Your task to perform on an android device: empty trash in the gmail app Image 0: 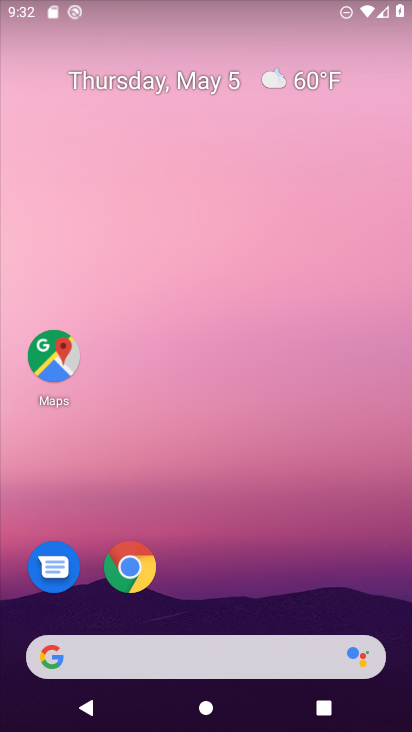
Step 0: drag from (217, 729) to (214, 59)
Your task to perform on an android device: empty trash in the gmail app Image 1: 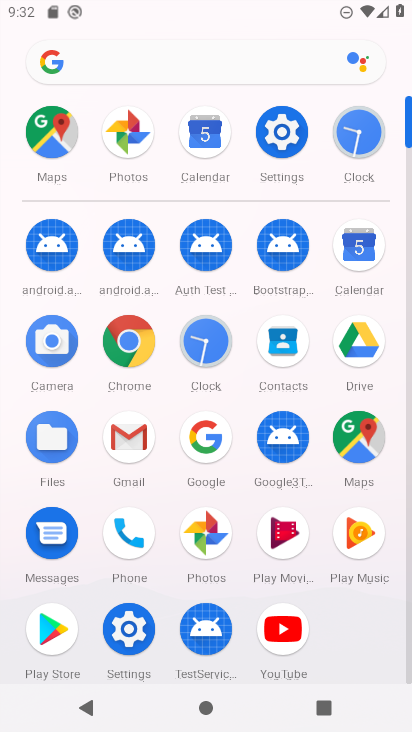
Step 1: click (119, 443)
Your task to perform on an android device: empty trash in the gmail app Image 2: 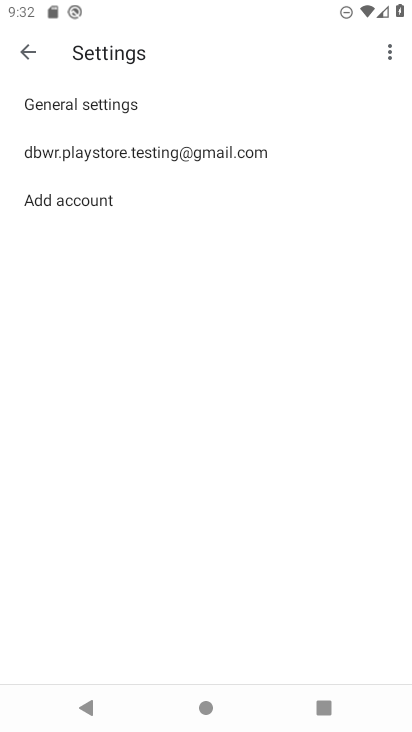
Step 2: click (23, 48)
Your task to perform on an android device: empty trash in the gmail app Image 3: 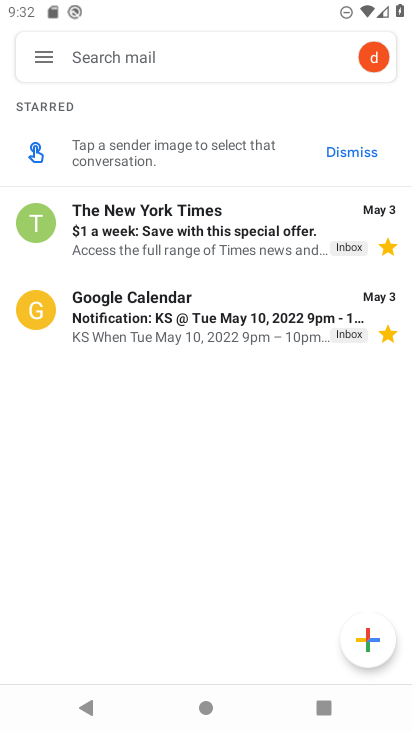
Step 3: click (40, 53)
Your task to perform on an android device: empty trash in the gmail app Image 4: 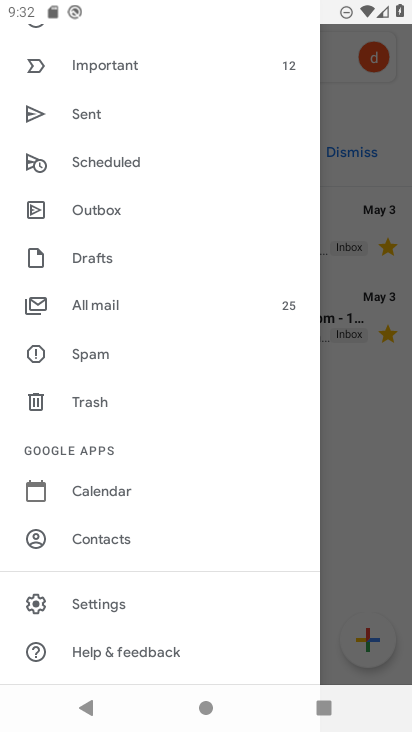
Step 4: click (88, 396)
Your task to perform on an android device: empty trash in the gmail app Image 5: 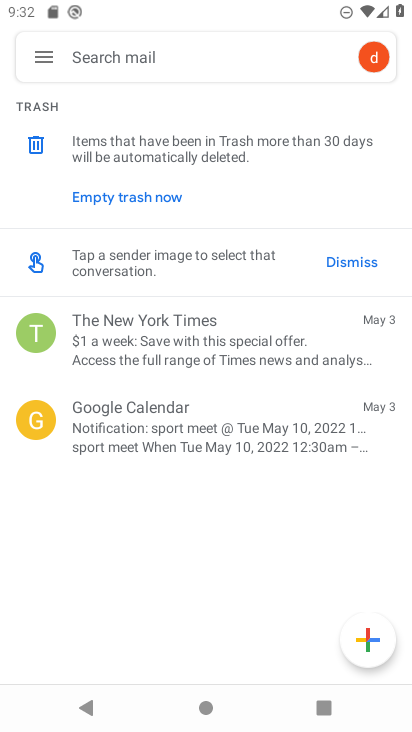
Step 5: click (117, 194)
Your task to perform on an android device: empty trash in the gmail app Image 6: 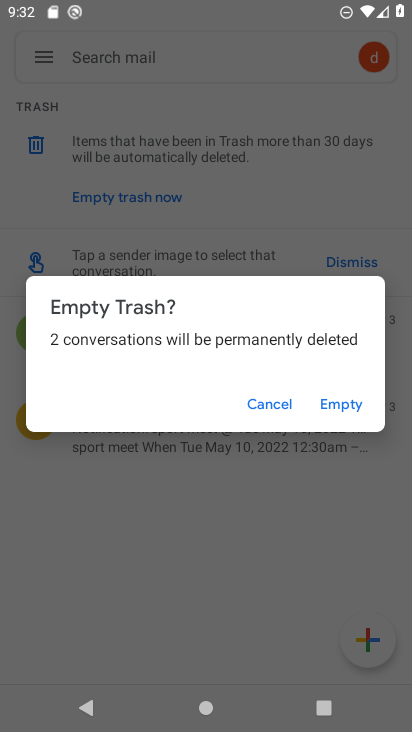
Step 6: click (331, 407)
Your task to perform on an android device: empty trash in the gmail app Image 7: 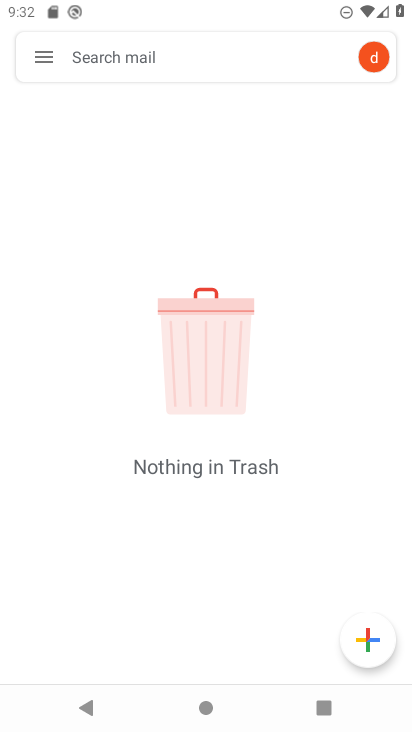
Step 7: task complete